Your task to perform on an android device: turn off translation in the chrome app Image 0: 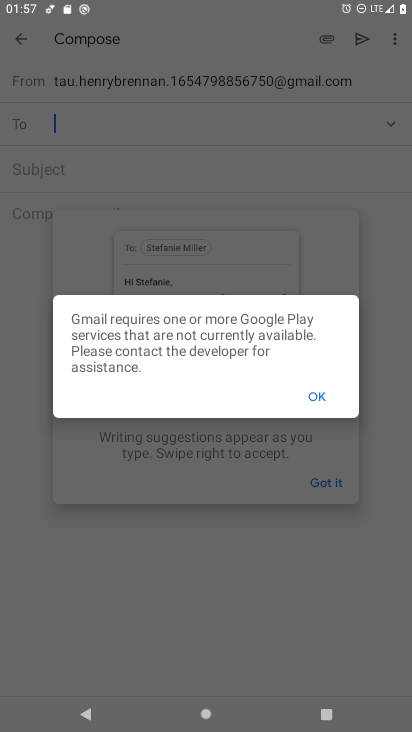
Step 0: press home button
Your task to perform on an android device: turn off translation in the chrome app Image 1: 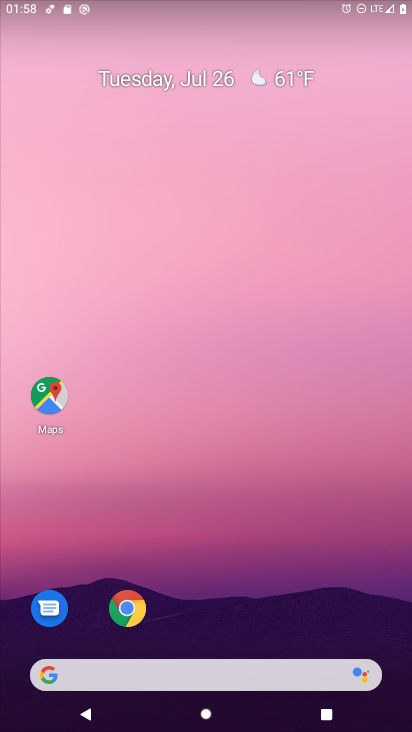
Step 1: click (125, 610)
Your task to perform on an android device: turn off translation in the chrome app Image 2: 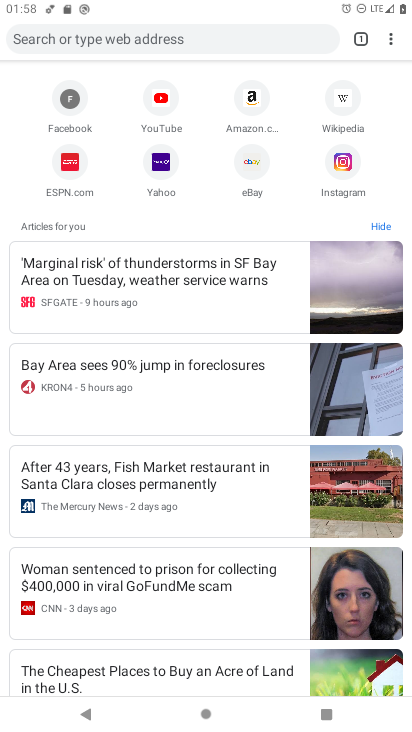
Step 2: click (388, 38)
Your task to perform on an android device: turn off translation in the chrome app Image 3: 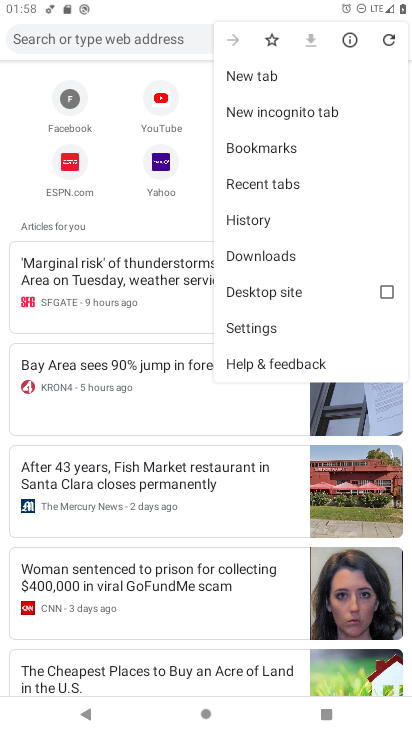
Step 3: click (268, 323)
Your task to perform on an android device: turn off translation in the chrome app Image 4: 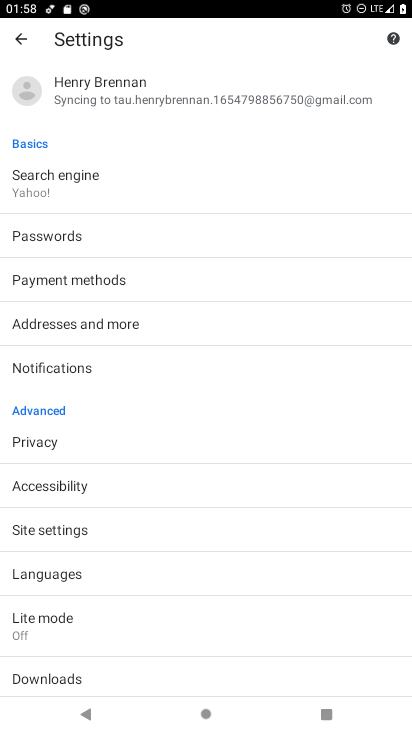
Step 4: click (59, 571)
Your task to perform on an android device: turn off translation in the chrome app Image 5: 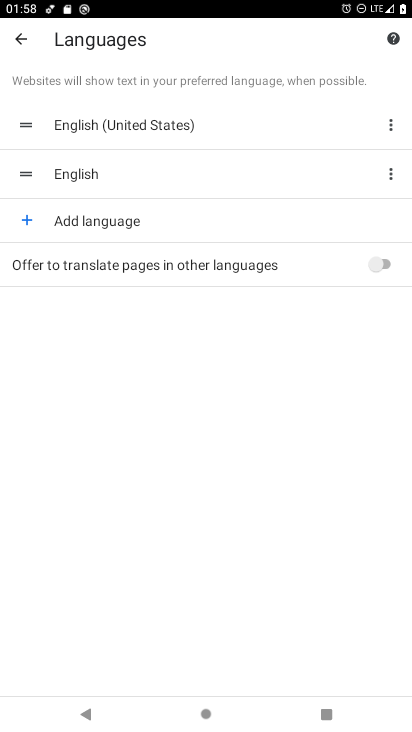
Step 5: task complete